Your task to perform on an android device: set the timer Image 0: 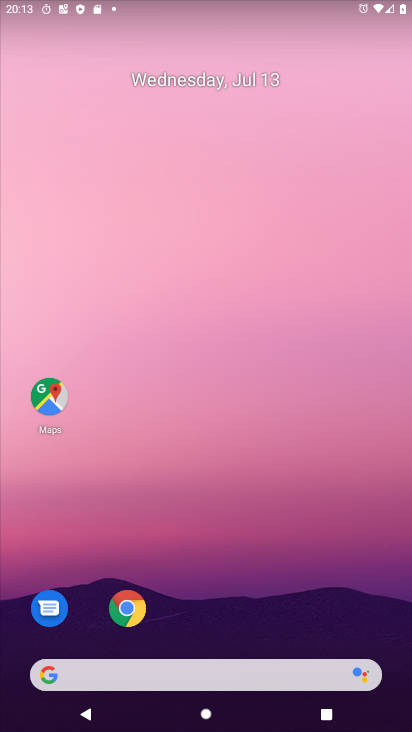
Step 0: drag from (206, 642) to (251, 59)
Your task to perform on an android device: set the timer Image 1: 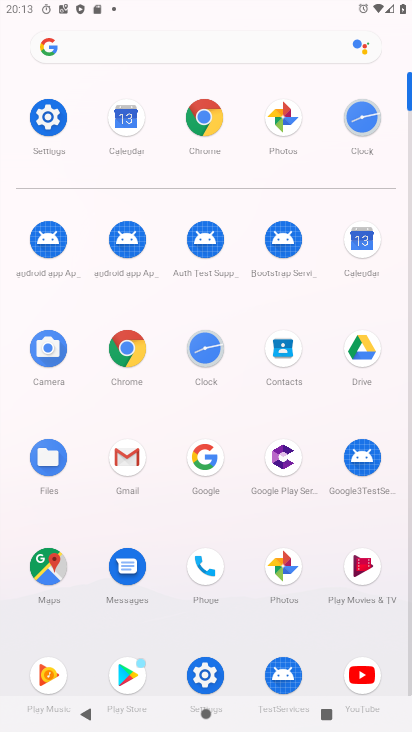
Step 1: click (207, 358)
Your task to perform on an android device: set the timer Image 2: 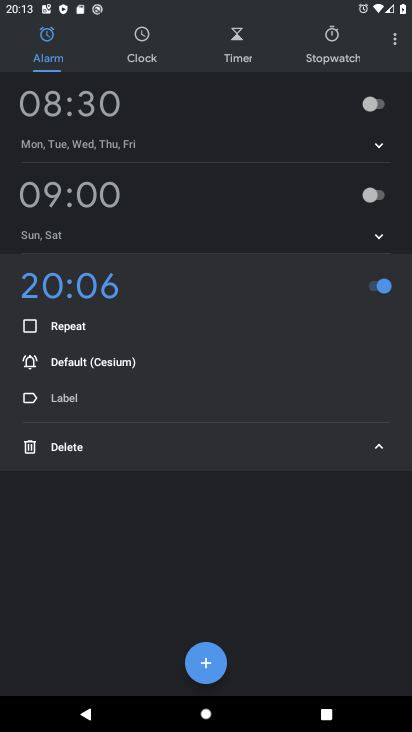
Step 2: click (253, 45)
Your task to perform on an android device: set the timer Image 3: 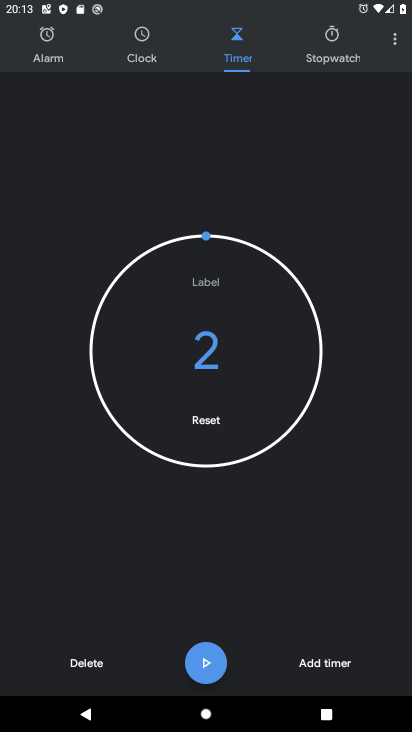
Step 3: click (216, 658)
Your task to perform on an android device: set the timer Image 4: 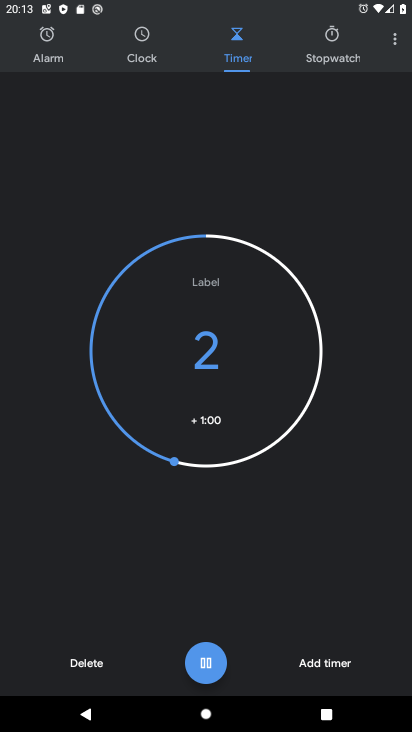
Step 4: click (216, 658)
Your task to perform on an android device: set the timer Image 5: 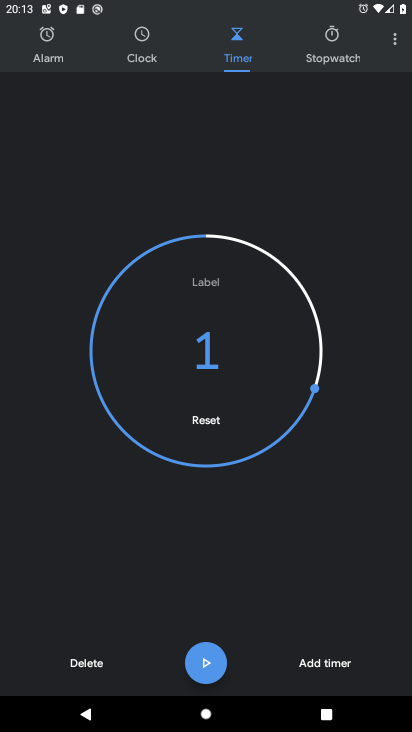
Step 5: click (339, 678)
Your task to perform on an android device: set the timer Image 6: 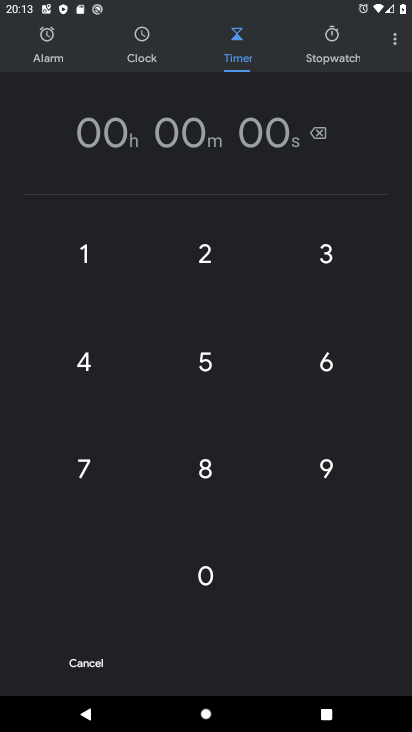
Step 6: task complete